Your task to perform on an android device: empty trash in google photos Image 0: 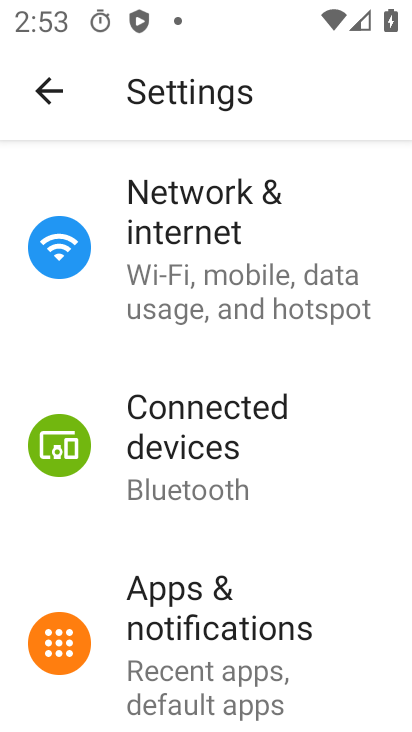
Step 0: press home button
Your task to perform on an android device: empty trash in google photos Image 1: 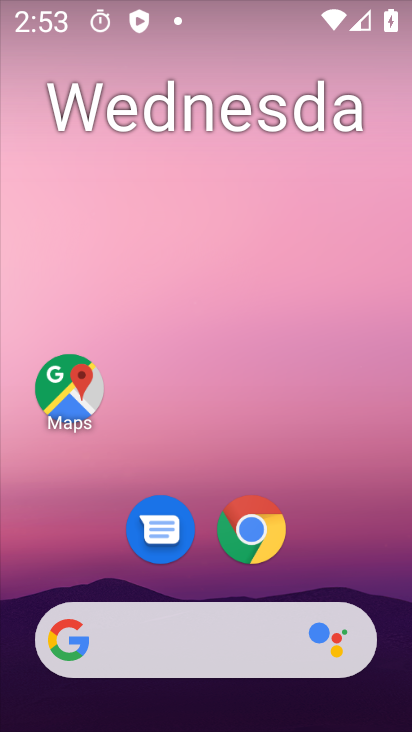
Step 1: drag from (344, 581) to (340, 133)
Your task to perform on an android device: empty trash in google photos Image 2: 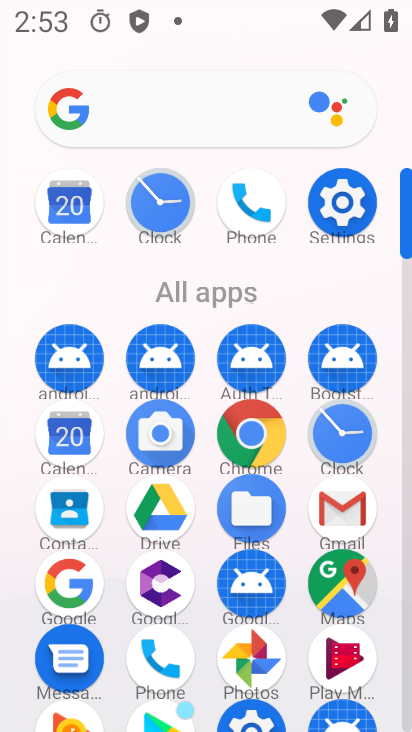
Step 2: click (251, 660)
Your task to perform on an android device: empty trash in google photos Image 3: 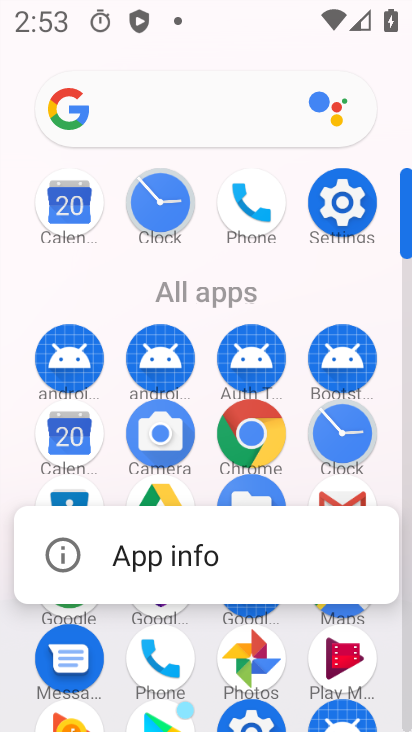
Step 3: click (251, 660)
Your task to perform on an android device: empty trash in google photos Image 4: 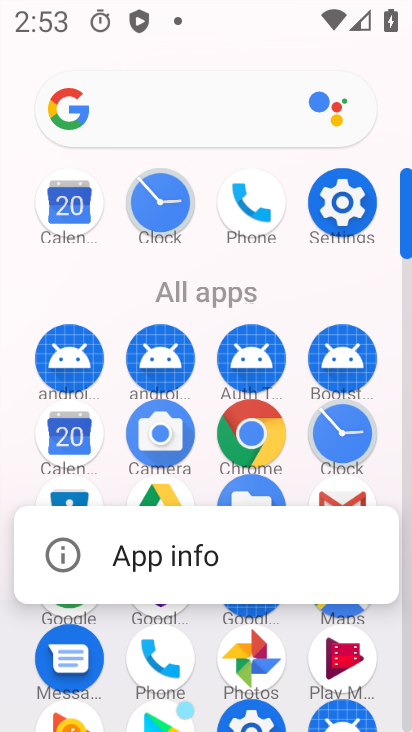
Step 4: click (251, 660)
Your task to perform on an android device: empty trash in google photos Image 5: 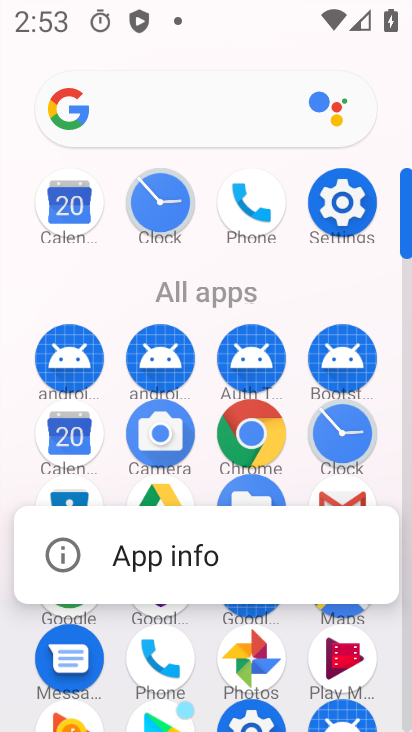
Step 5: click (250, 660)
Your task to perform on an android device: empty trash in google photos Image 6: 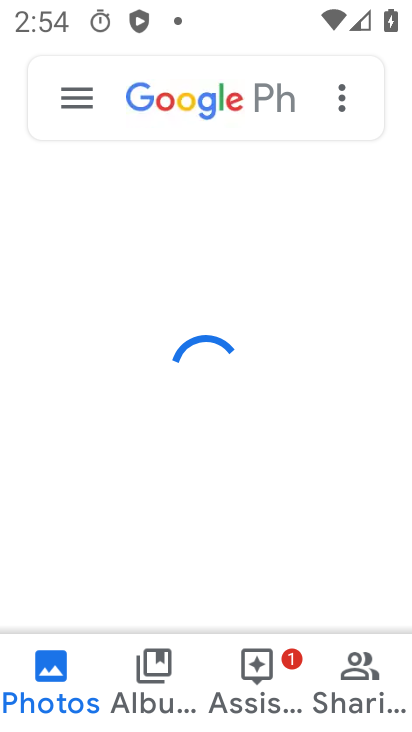
Step 6: click (71, 94)
Your task to perform on an android device: empty trash in google photos Image 7: 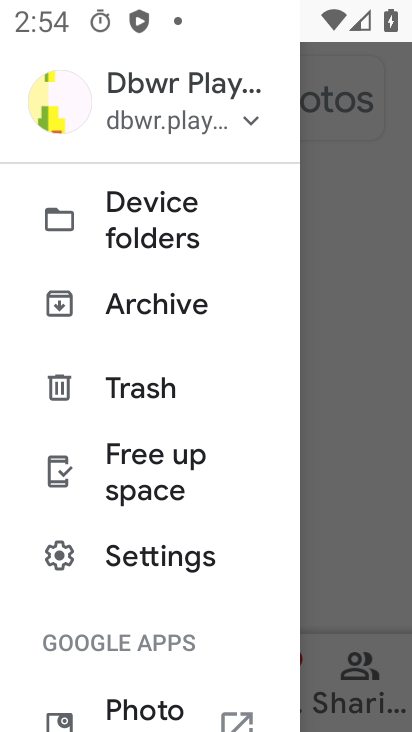
Step 7: click (157, 397)
Your task to perform on an android device: empty trash in google photos Image 8: 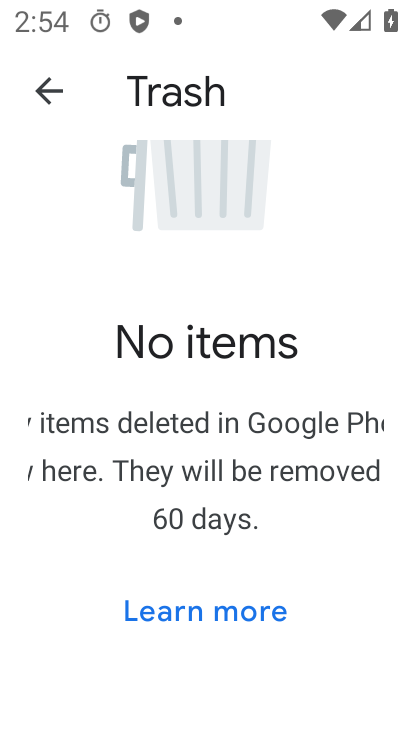
Step 8: task complete